Your task to perform on an android device: stop showing notifications on the lock screen Image 0: 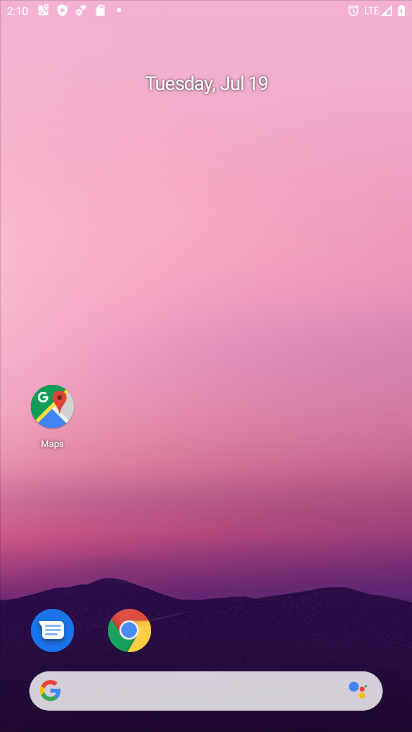
Step 0: press home button
Your task to perform on an android device: stop showing notifications on the lock screen Image 1: 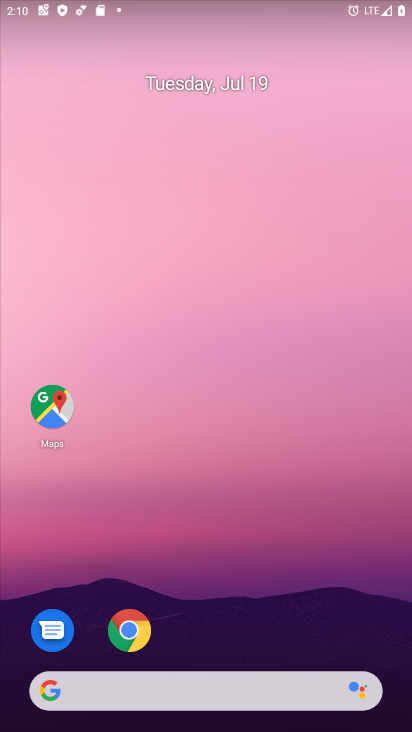
Step 1: drag from (206, 646) to (228, 78)
Your task to perform on an android device: stop showing notifications on the lock screen Image 2: 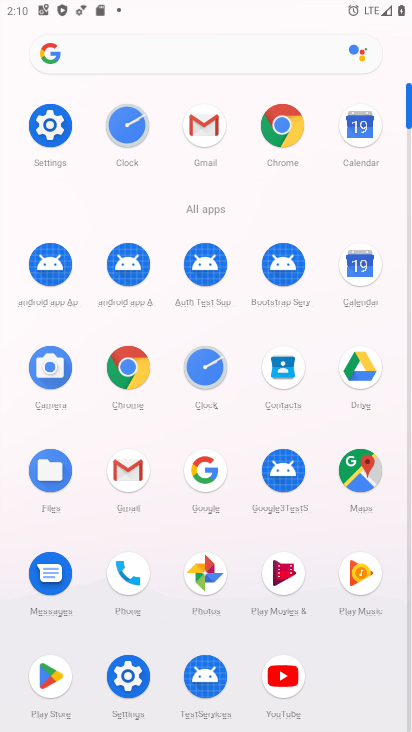
Step 2: click (48, 121)
Your task to perform on an android device: stop showing notifications on the lock screen Image 3: 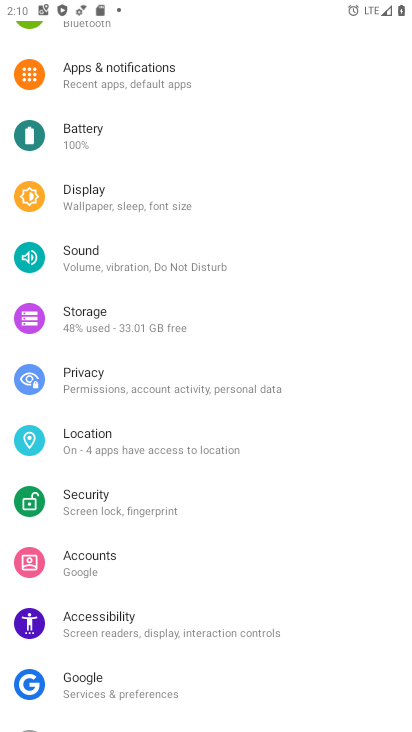
Step 3: click (163, 66)
Your task to perform on an android device: stop showing notifications on the lock screen Image 4: 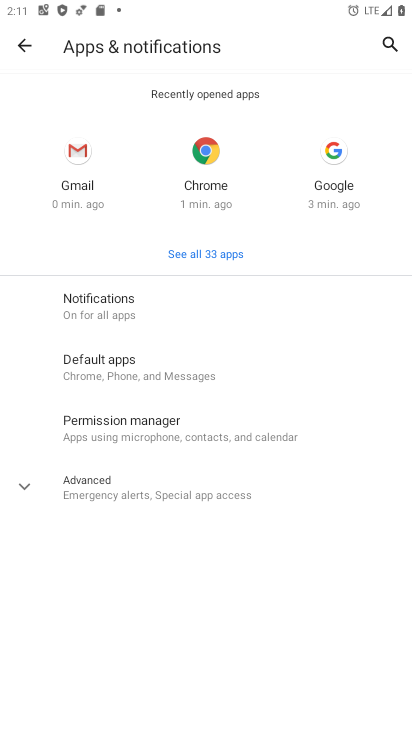
Step 4: click (118, 296)
Your task to perform on an android device: stop showing notifications on the lock screen Image 5: 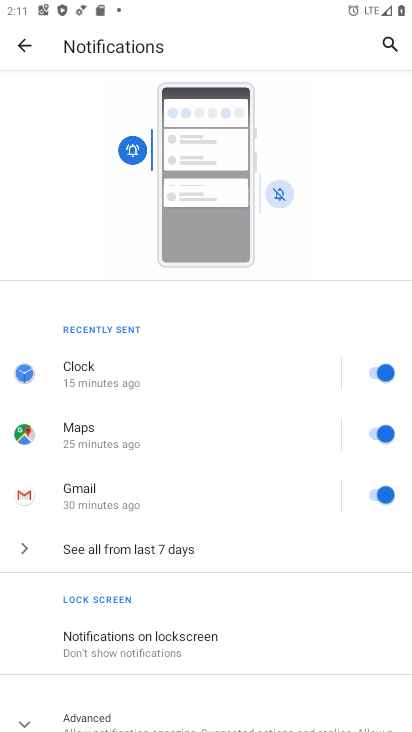
Step 5: click (171, 638)
Your task to perform on an android device: stop showing notifications on the lock screen Image 6: 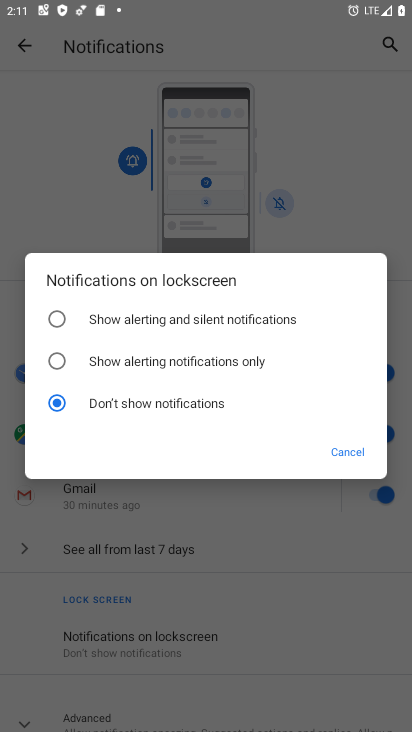
Step 6: click (62, 401)
Your task to perform on an android device: stop showing notifications on the lock screen Image 7: 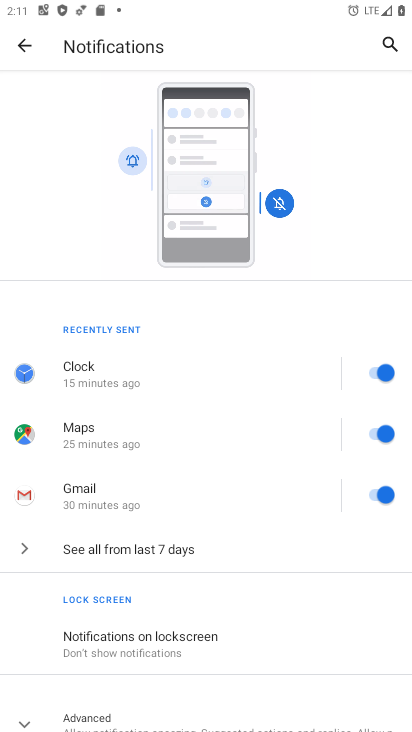
Step 7: task complete